Your task to perform on an android device: Check the weather Image 0: 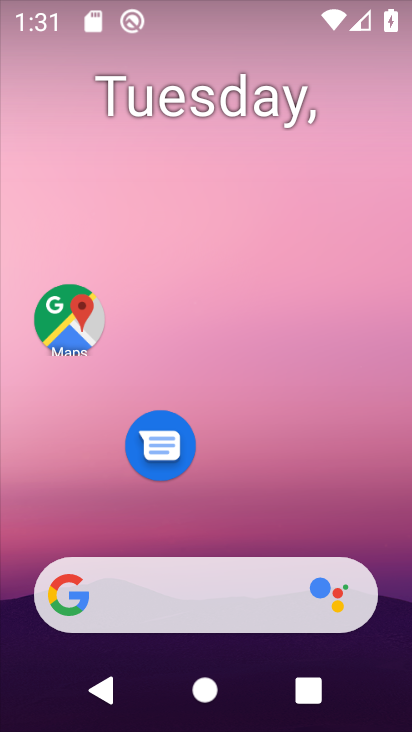
Step 0: click (215, 577)
Your task to perform on an android device: Check the weather Image 1: 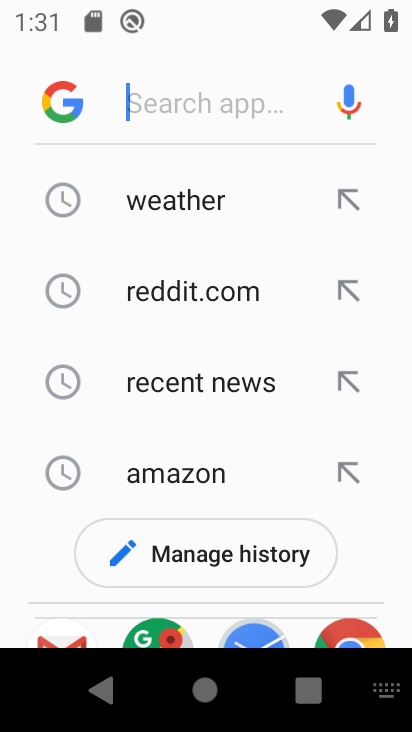
Step 1: click (180, 199)
Your task to perform on an android device: Check the weather Image 2: 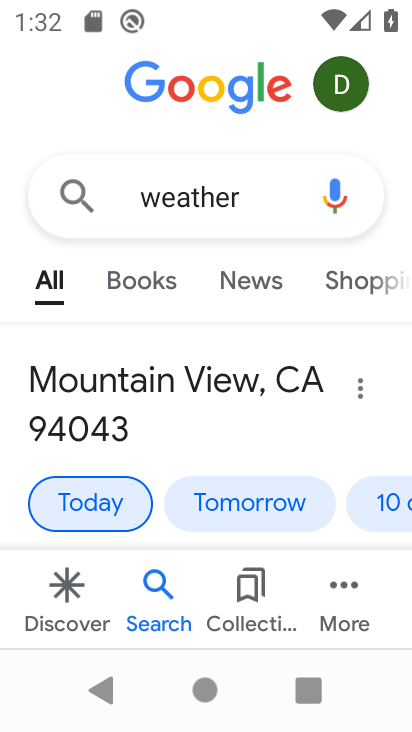
Step 2: task complete